Your task to perform on an android device: Go to network settings Image 0: 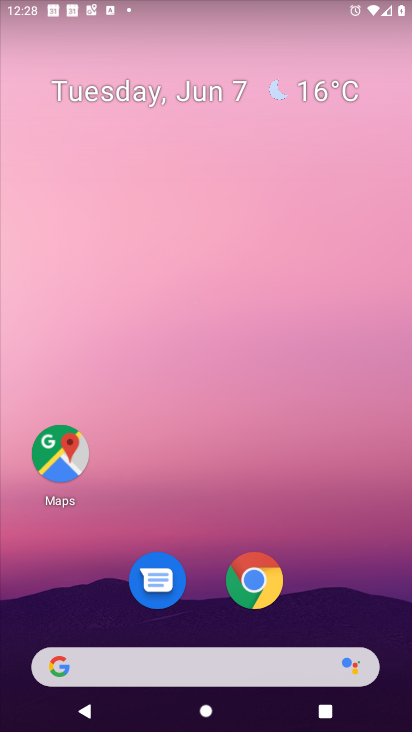
Step 0: drag from (333, 595) to (193, 3)
Your task to perform on an android device: Go to network settings Image 1: 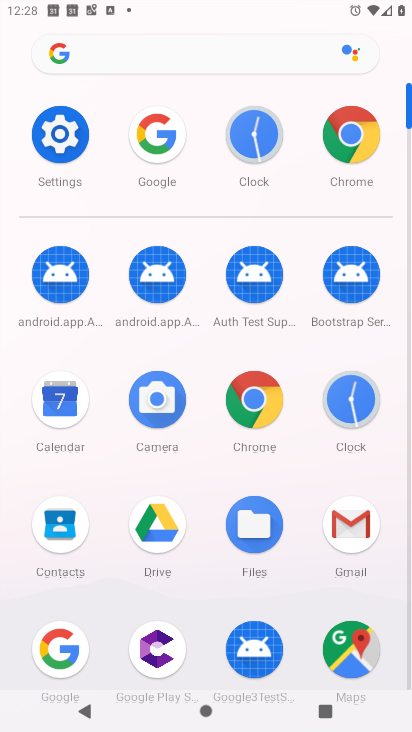
Step 1: click (69, 171)
Your task to perform on an android device: Go to network settings Image 2: 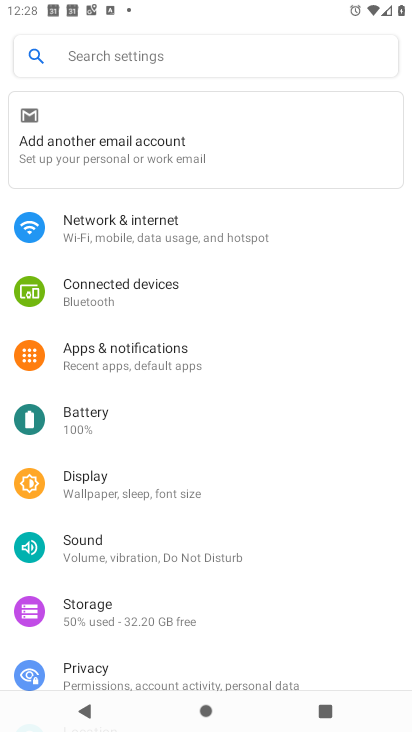
Step 2: click (116, 230)
Your task to perform on an android device: Go to network settings Image 3: 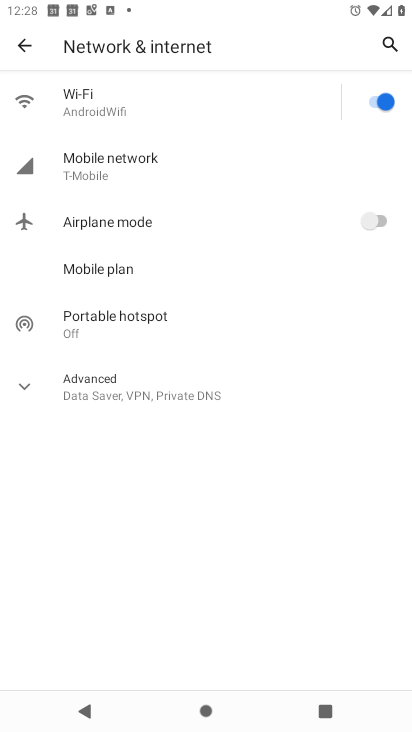
Step 3: task complete